Your task to perform on an android device: See recent photos Image 0: 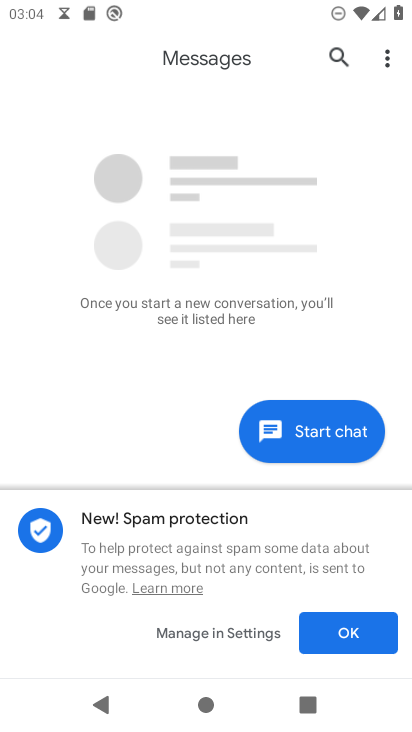
Step 0: drag from (241, 567) to (400, 477)
Your task to perform on an android device: See recent photos Image 1: 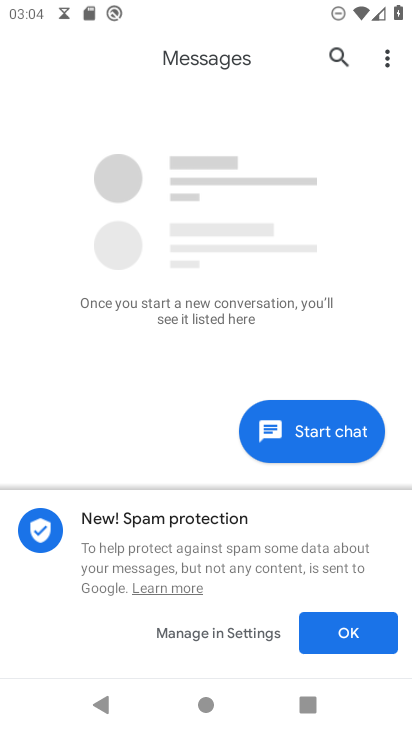
Step 1: press home button
Your task to perform on an android device: See recent photos Image 2: 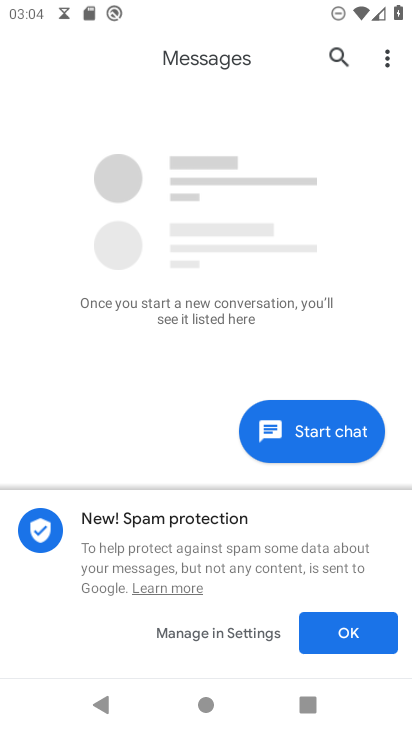
Step 2: drag from (400, 477) to (407, 518)
Your task to perform on an android device: See recent photos Image 3: 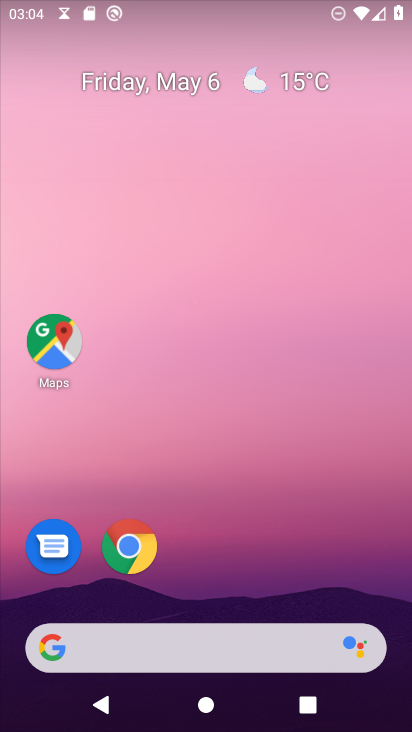
Step 3: click (364, 703)
Your task to perform on an android device: See recent photos Image 4: 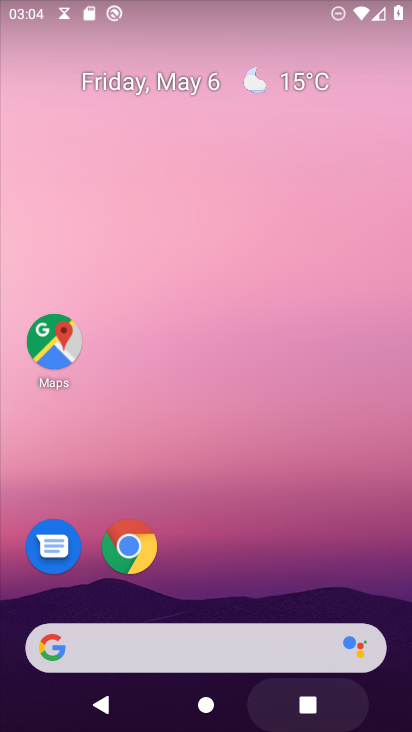
Step 4: drag from (302, 590) to (292, 146)
Your task to perform on an android device: See recent photos Image 5: 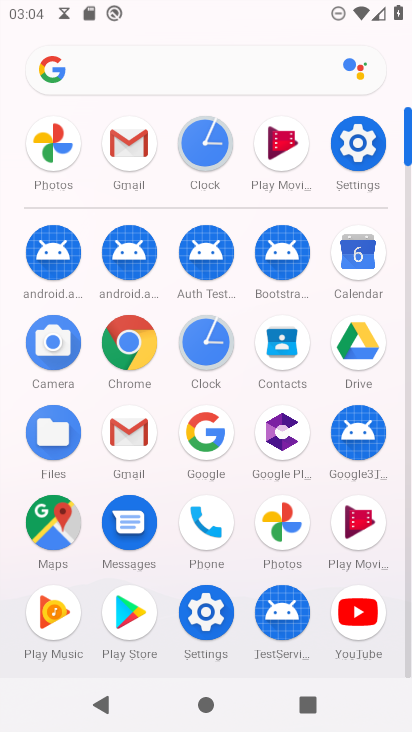
Step 5: click (62, 150)
Your task to perform on an android device: See recent photos Image 6: 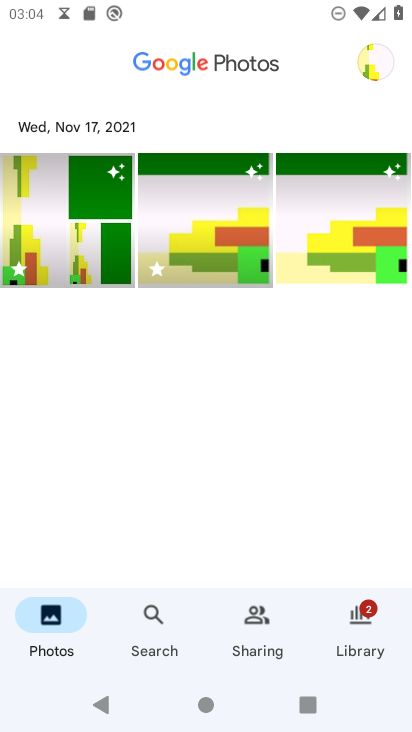
Step 6: click (154, 618)
Your task to perform on an android device: See recent photos Image 7: 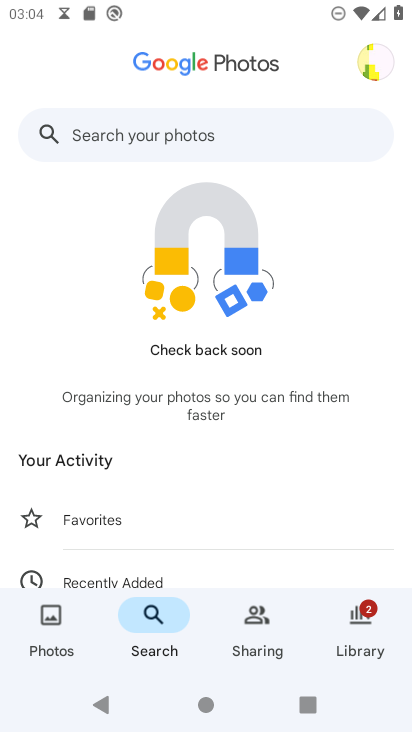
Step 7: drag from (215, 532) to (220, 395)
Your task to perform on an android device: See recent photos Image 8: 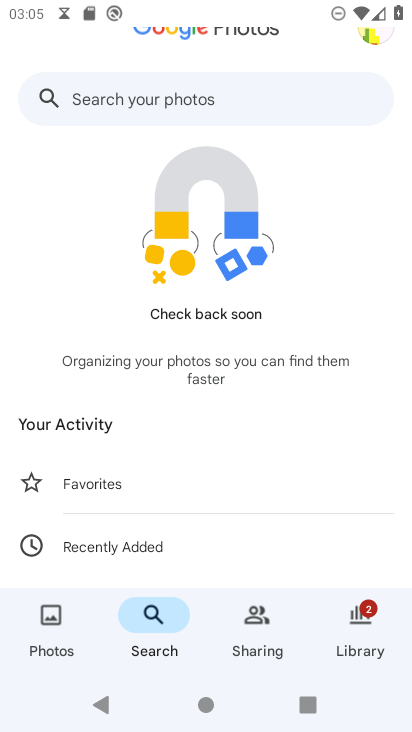
Step 8: click (121, 576)
Your task to perform on an android device: See recent photos Image 9: 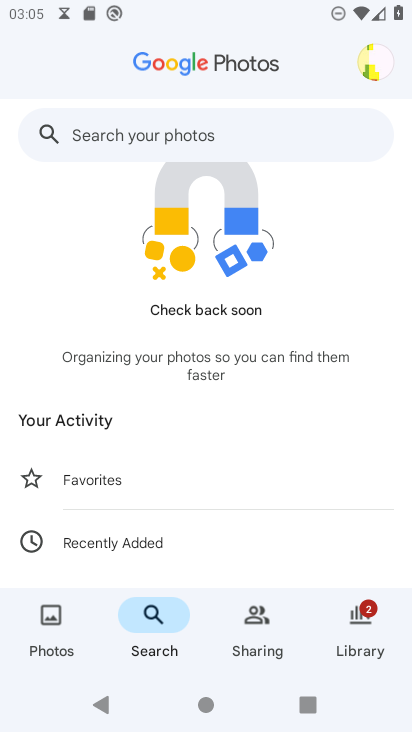
Step 9: click (127, 545)
Your task to perform on an android device: See recent photos Image 10: 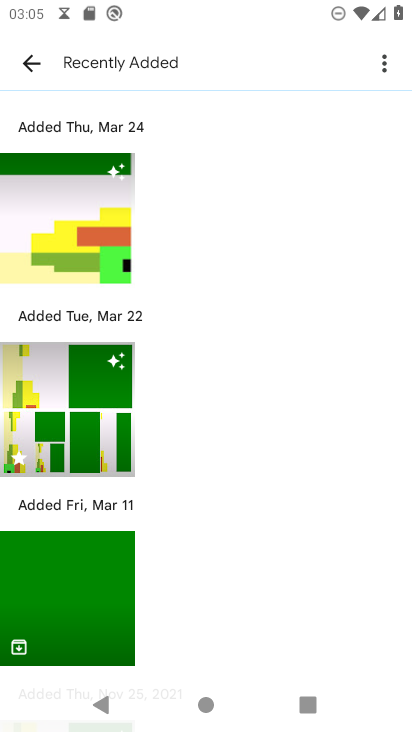
Step 10: task complete